Your task to perform on an android device: toggle translation in the chrome app Image 0: 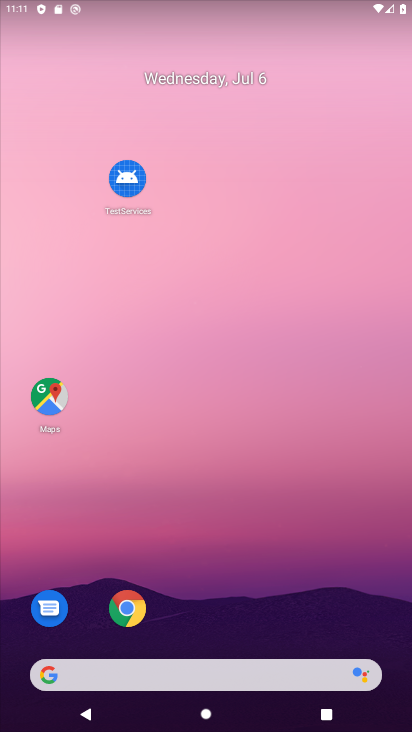
Step 0: drag from (289, 716) to (222, 242)
Your task to perform on an android device: toggle translation in the chrome app Image 1: 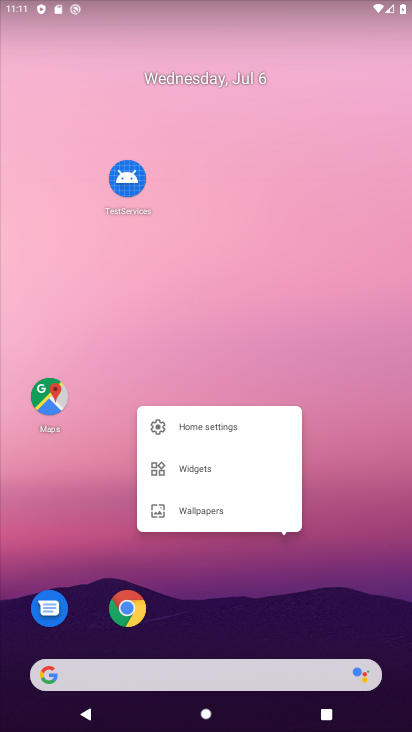
Step 1: drag from (252, 552) to (131, 1)
Your task to perform on an android device: toggle translation in the chrome app Image 2: 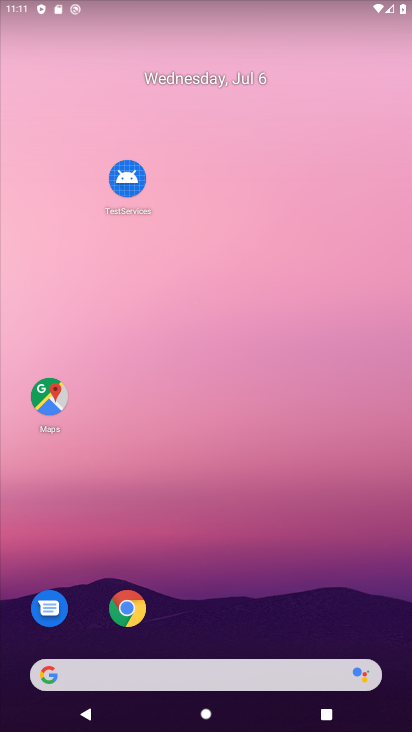
Step 2: drag from (246, 459) to (141, 60)
Your task to perform on an android device: toggle translation in the chrome app Image 3: 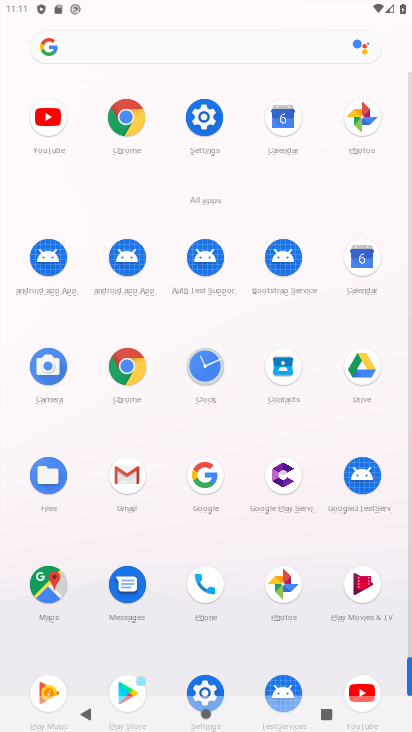
Step 3: click (128, 118)
Your task to perform on an android device: toggle translation in the chrome app Image 4: 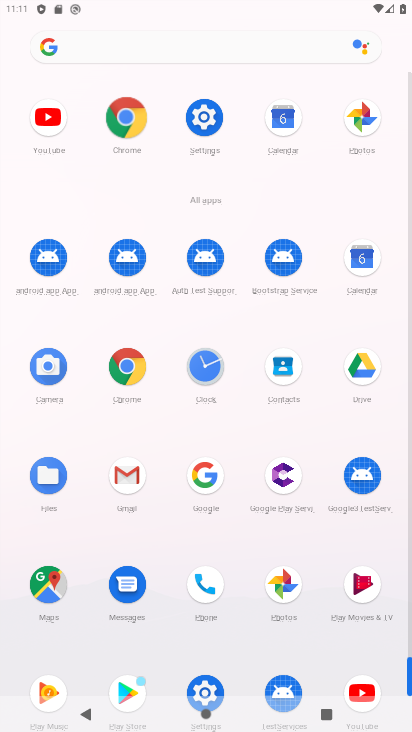
Step 4: click (132, 113)
Your task to perform on an android device: toggle translation in the chrome app Image 5: 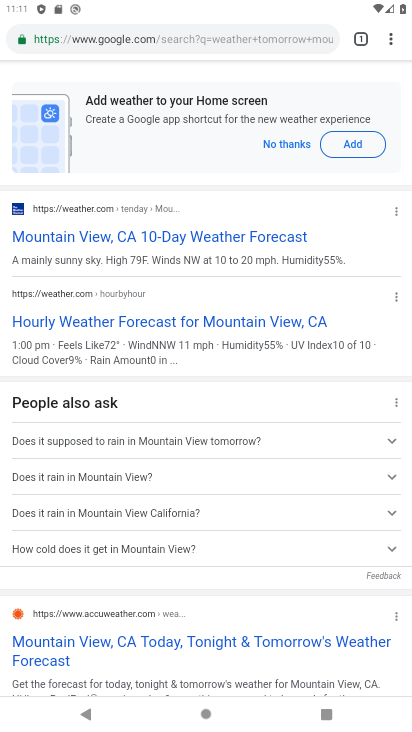
Step 5: click (118, 108)
Your task to perform on an android device: toggle translation in the chrome app Image 6: 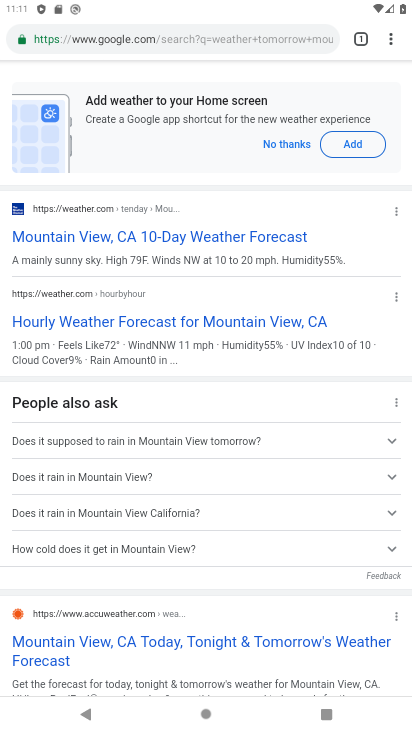
Step 6: click (118, 108)
Your task to perform on an android device: toggle translation in the chrome app Image 7: 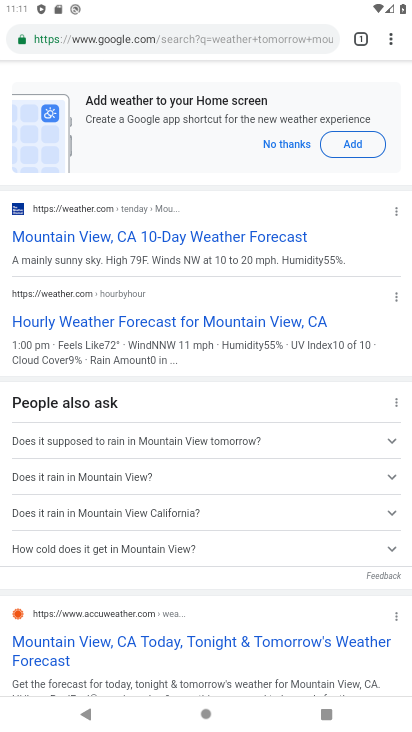
Step 7: press back button
Your task to perform on an android device: toggle translation in the chrome app Image 8: 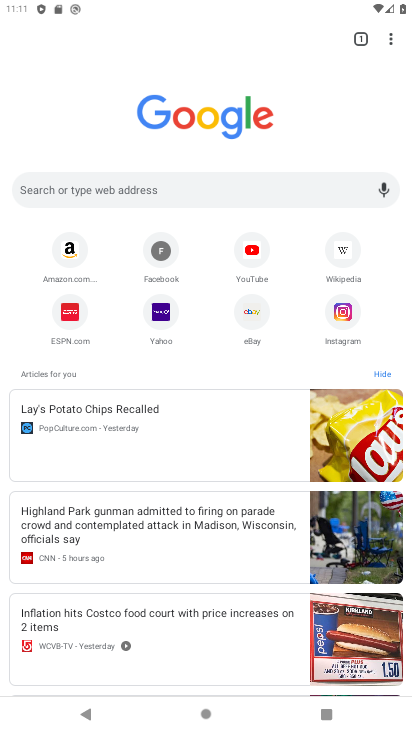
Step 8: click (389, 43)
Your task to perform on an android device: toggle translation in the chrome app Image 9: 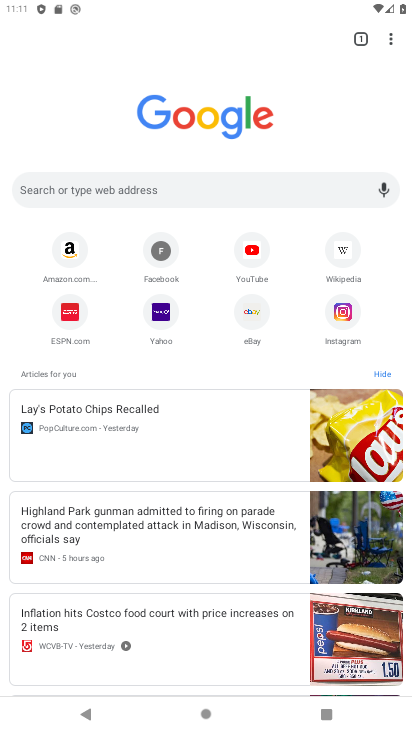
Step 9: drag from (389, 39) to (254, 367)
Your task to perform on an android device: toggle translation in the chrome app Image 10: 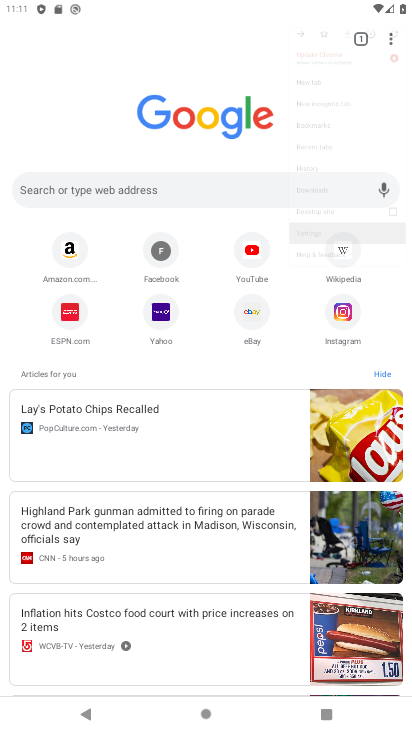
Step 10: click (254, 367)
Your task to perform on an android device: toggle translation in the chrome app Image 11: 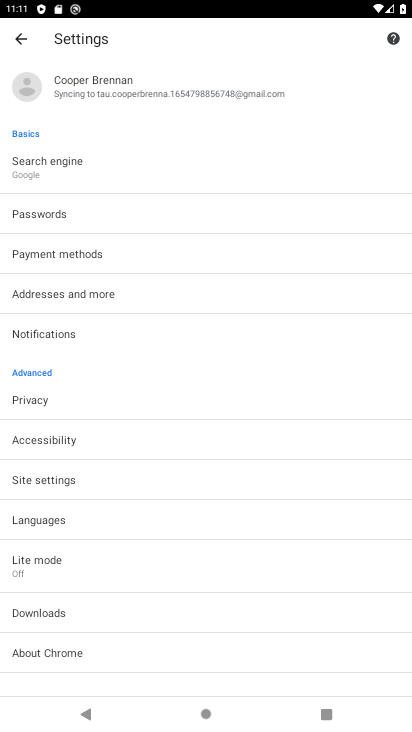
Step 11: click (43, 520)
Your task to perform on an android device: toggle translation in the chrome app Image 12: 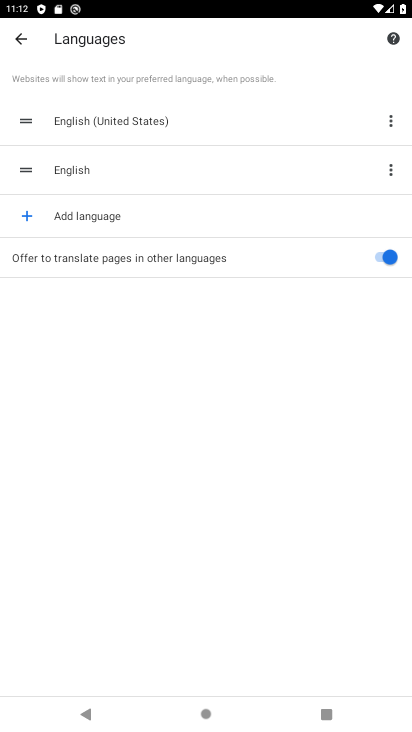
Step 12: click (392, 251)
Your task to perform on an android device: toggle translation in the chrome app Image 13: 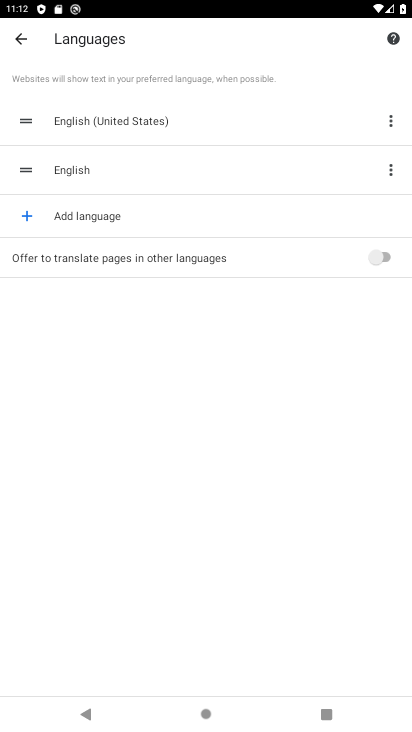
Step 13: click (383, 261)
Your task to perform on an android device: toggle translation in the chrome app Image 14: 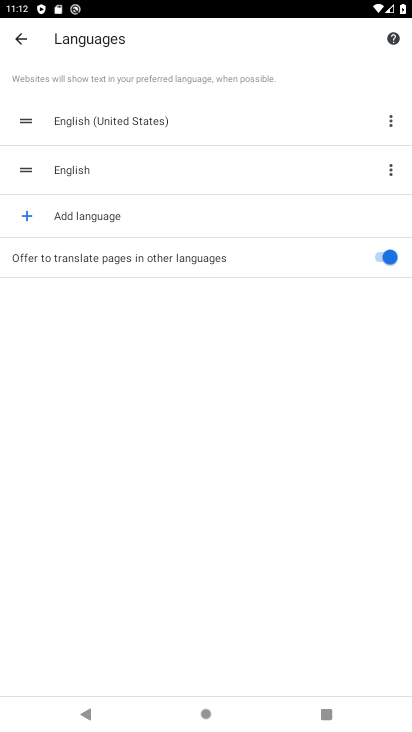
Step 14: click (388, 255)
Your task to perform on an android device: toggle translation in the chrome app Image 15: 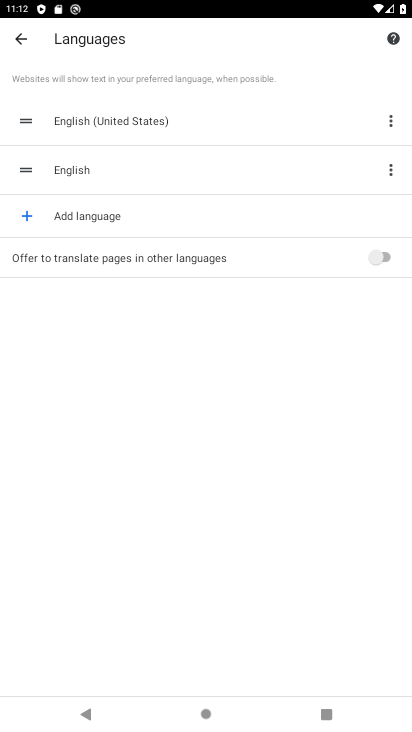
Step 15: task complete